Your task to perform on an android device: uninstall "Upside-Cash back on gas & food" Image 0: 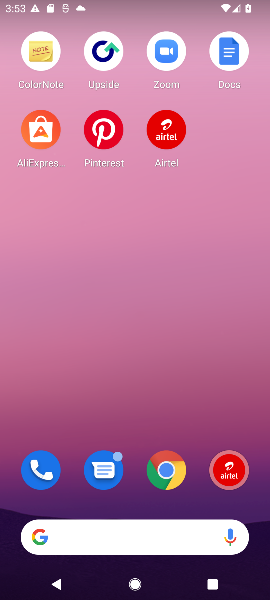
Step 0: drag from (93, 516) to (130, 199)
Your task to perform on an android device: uninstall "Upside-Cash back on gas & food" Image 1: 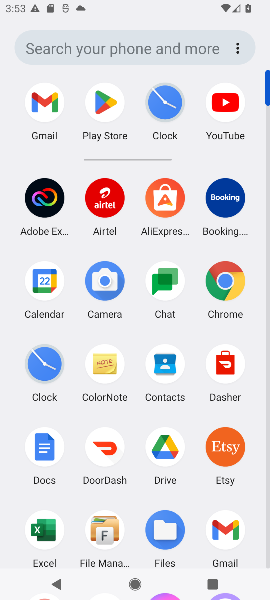
Step 1: click (109, 97)
Your task to perform on an android device: uninstall "Upside-Cash back on gas & food" Image 2: 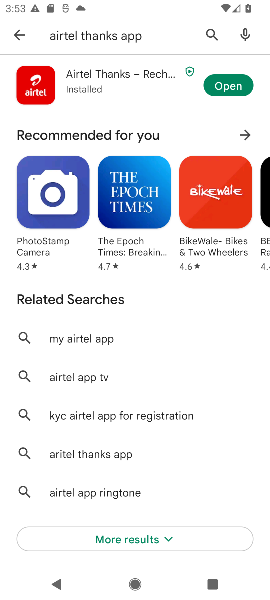
Step 2: click (21, 31)
Your task to perform on an android device: uninstall "Upside-Cash back on gas & food" Image 3: 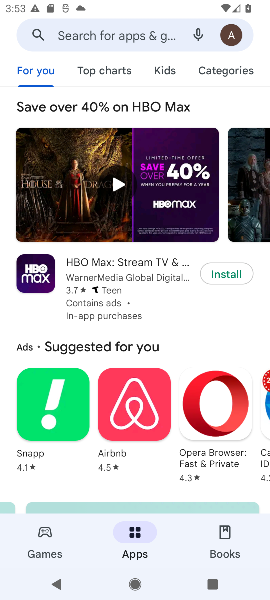
Step 3: click (130, 29)
Your task to perform on an android device: uninstall "Upside-Cash back on gas & food" Image 4: 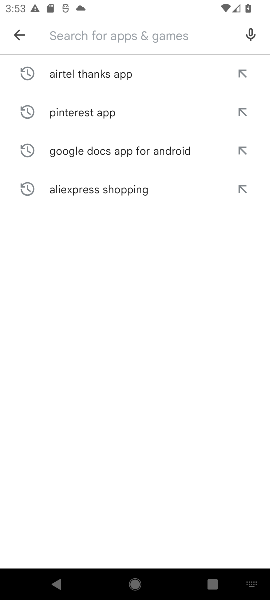
Step 4: type "Upside-Cash back on gas & food "
Your task to perform on an android device: uninstall "Upside-Cash back on gas & food" Image 5: 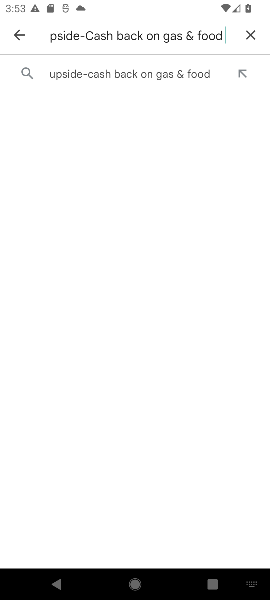
Step 5: click (136, 76)
Your task to perform on an android device: uninstall "Upside-Cash back on gas & food" Image 6: 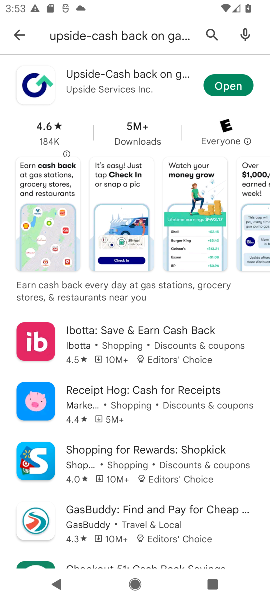
Step 6: click (107, 89)
Your task to perform on an android device: uninstall "Upside-Cash back on gas & food" Image 7: 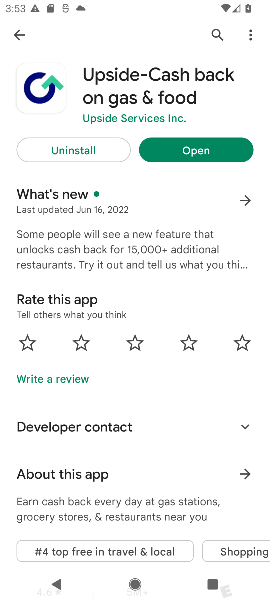
Step 7: click (91, 148)
Your task to perform on an android device: uninstall "Upside-Cash back on gas & food" Image 8: 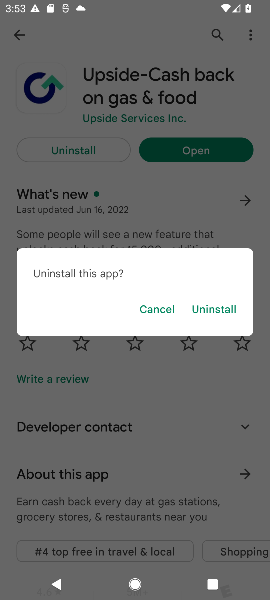
Step 8: click (223, 301)
Your task to perform on an android device: uninstall "Upside-Cash back on gas & food" Image 9: 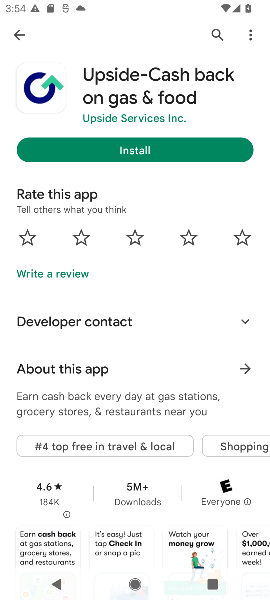
Step 9: task complete